Your task to perform on an android device: turn notification dots off Image 0: 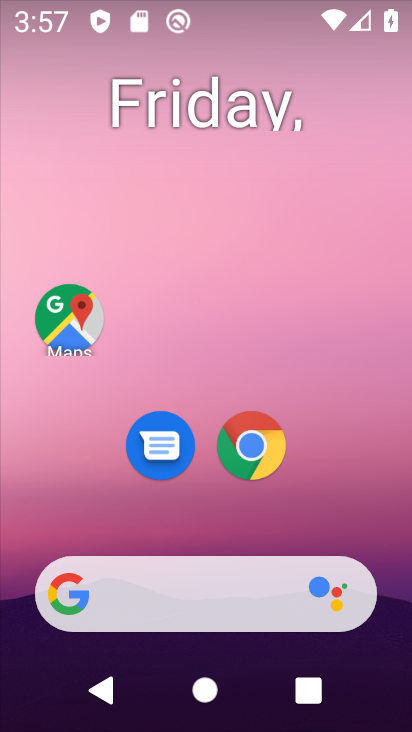
Step 0: press home button
Your task to perform on an android device: turn notification dots off Image 1: 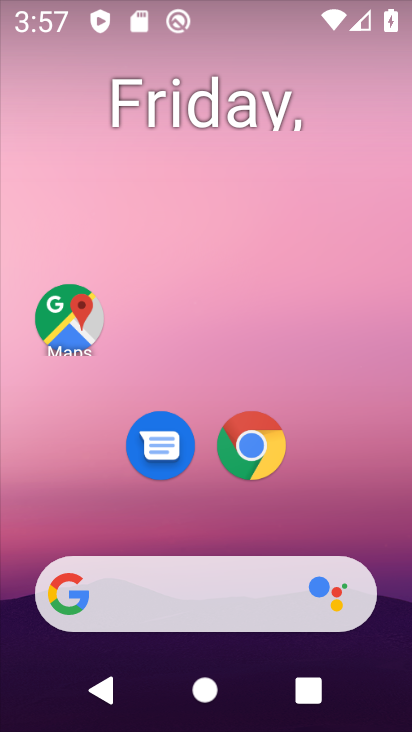
Step 1: drag from (319, 480) to (291, 167)
Your task to perform on an android device: turn notification dots off Image 2: 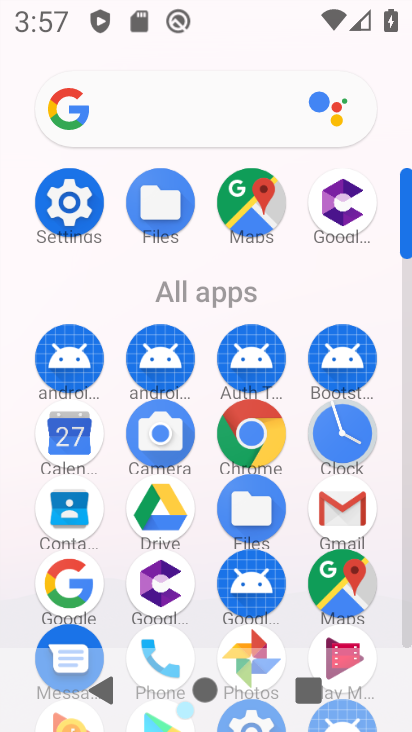
Step 2: click (67, 192)
Your task to perform on an android device: turn notification dots off Image 3: 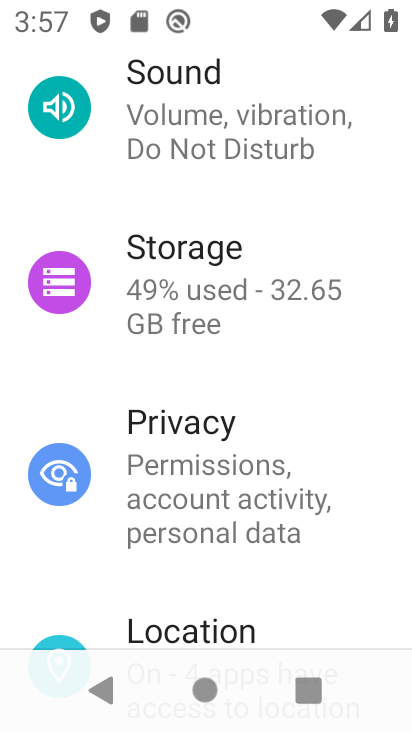
Step 3: drag from (304, 187) to (252, 684)
Your task to perform on an android device: turn notification dots off Image 4: 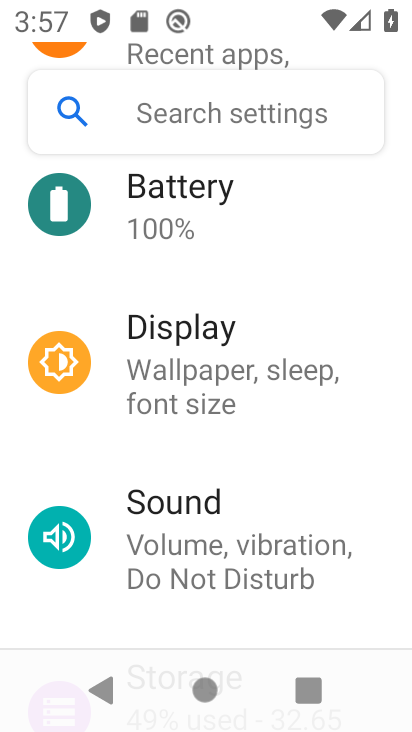
Step 4: drag from (305, 292) to (267, 731)
Your task to perform on an android device: turn notification dots off Image 5: 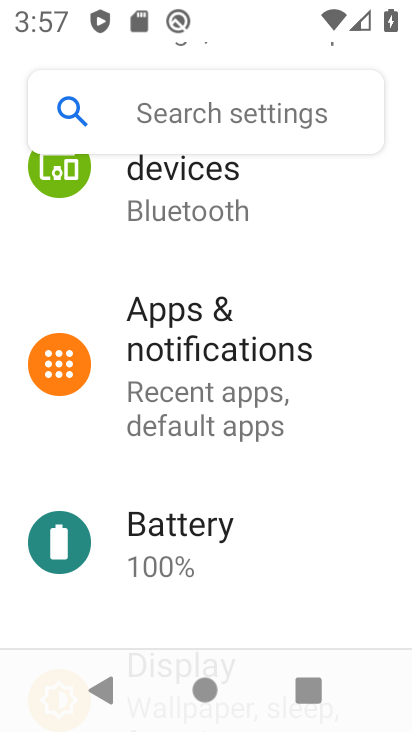
Step 5: click (196, 325)
Your task to perform on an android device: turn notification dots off Image 6: 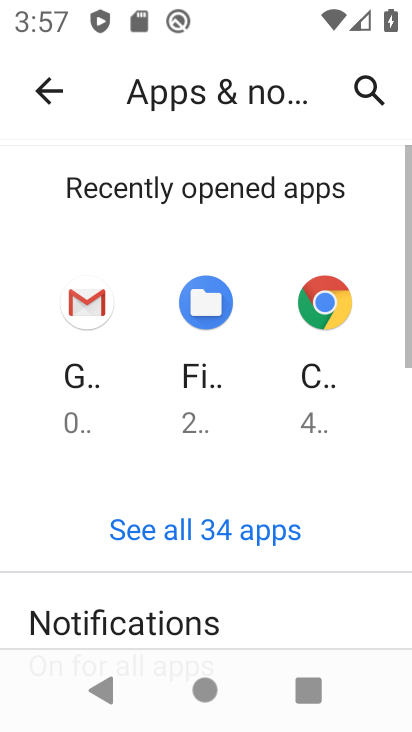
Step 6: click (128, 629)
Your task to perform on an android device: turn notification dots off Image 7: 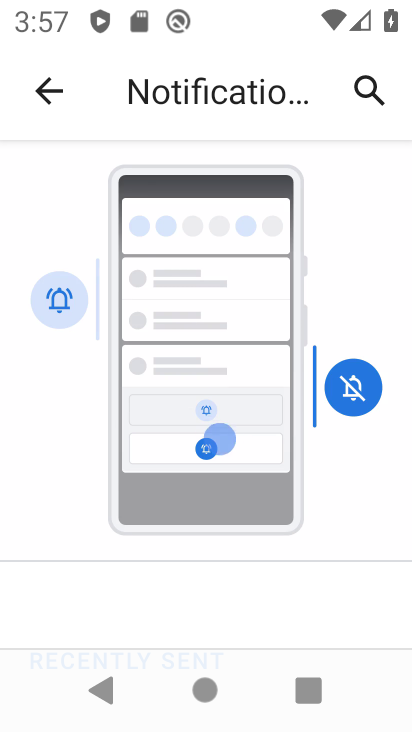
Step 7: drag from (354, 538) to (321, 170)
Your task to perform on an android device: turn notification dots off Image 8: 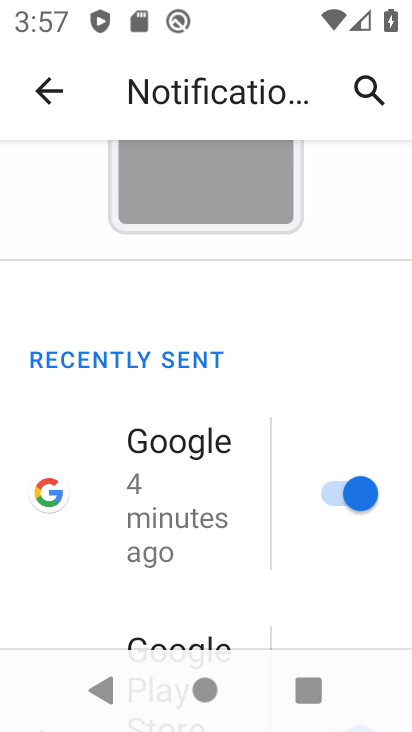
Step 8: drag from (349, 580) to (308, 171)
Your task to perform on an android device: turn notification dots off Image 9: 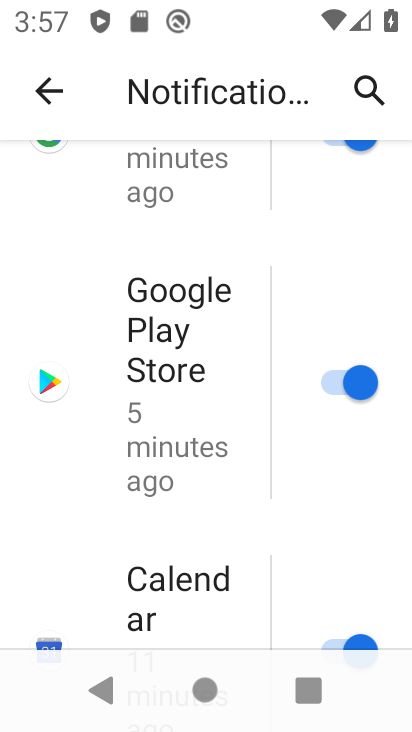
Step 9: drag from (320, 554) to (277, 26)
Your task to perform on an android device: turn notification dots off Image 10: 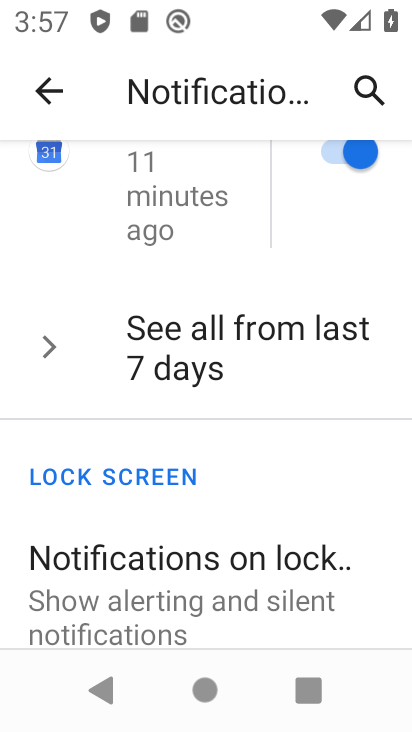
Step 10: drag from (295, 496) to (299, 196)
Your task to perform on an android device: turn notification dots off Image 11: 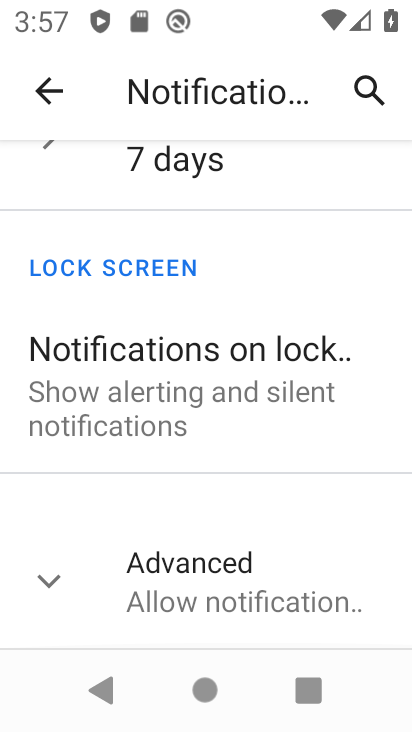
Step 11: click (192, 581)
Your task to perform on an android device: turn notification dots off Image 12: 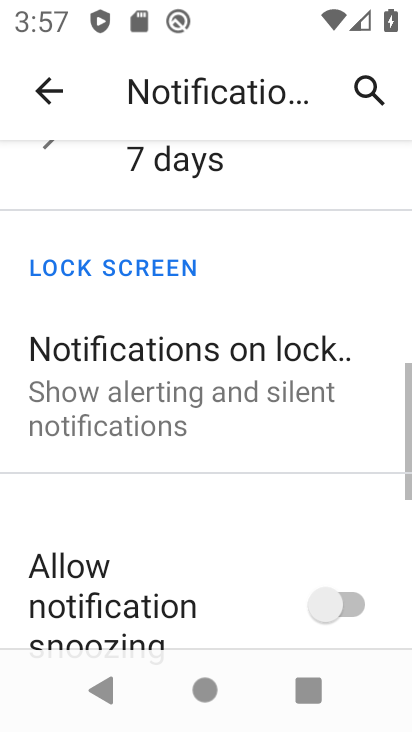
Step 12: drag from (263, 552) to (281, 237)
Your task to perform on an android device: turn notification dots off Image 13: 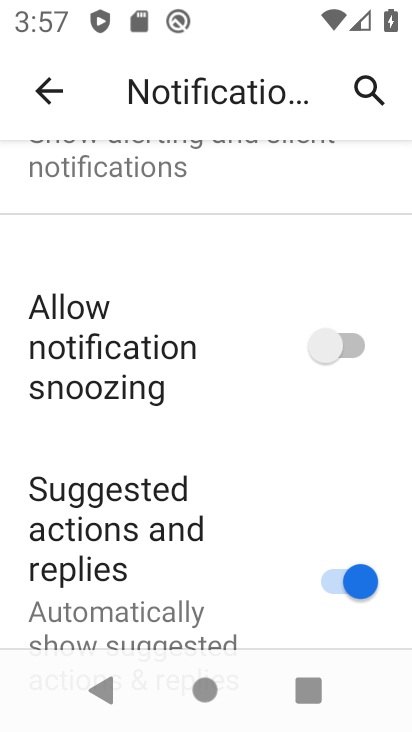
Step 13: drag from (288, 521) to (302, 208)
Your task to perform on an android device: turn notification dots off Image 14: 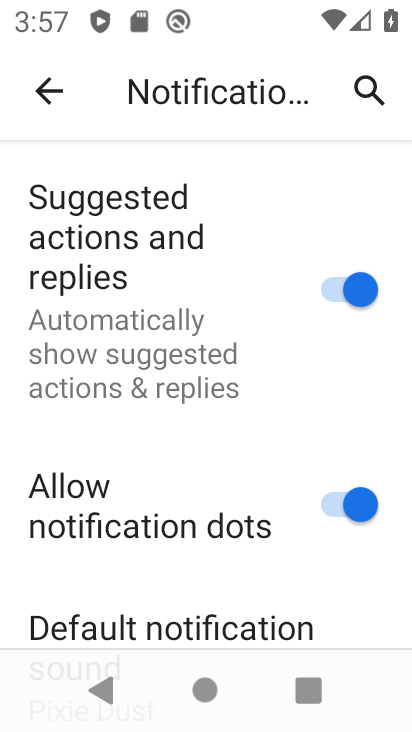
Step 14: click (360, 501)
Your task to perform on an android device: turn notification dots off Image 15: 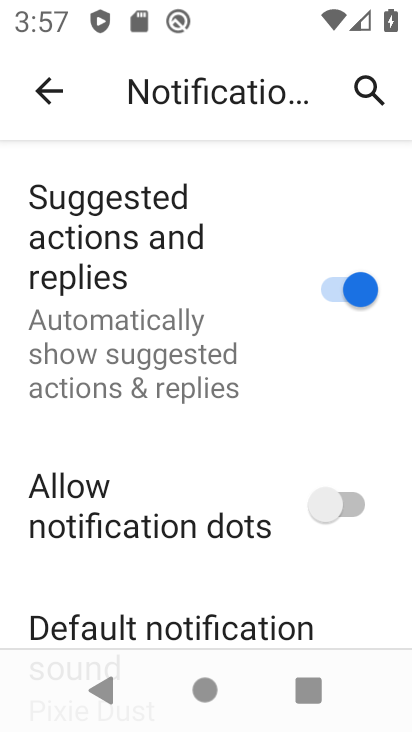
Step 15: task complete